Your task to perform on an android device: Open Youtube and go to the subscriptions tab Image 0: 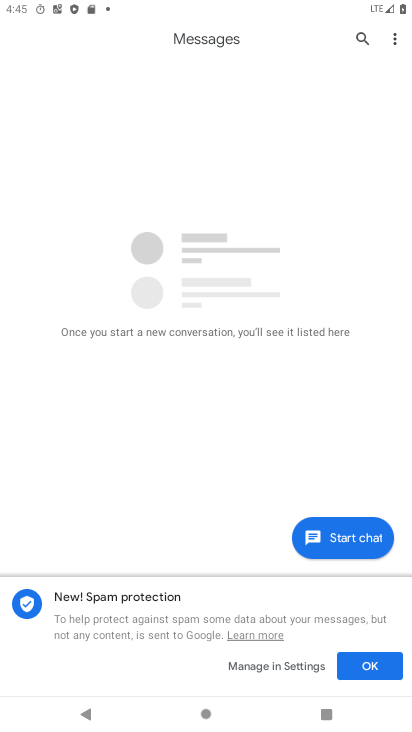
Step 0: press home button
Your task to perform on an android device: Open Youtube and go to the subscriptions tab Image 1: 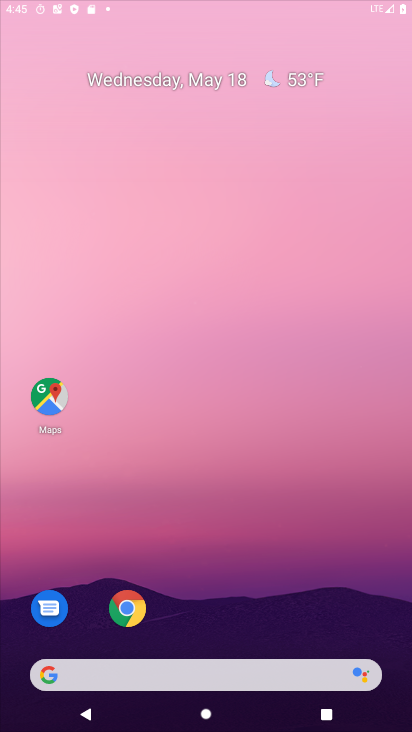
Step 1: drag from (219, 670) to (262, 13)
Your task to perform on an android device: Open Youtube and go to the subscriptions tab Image 2: 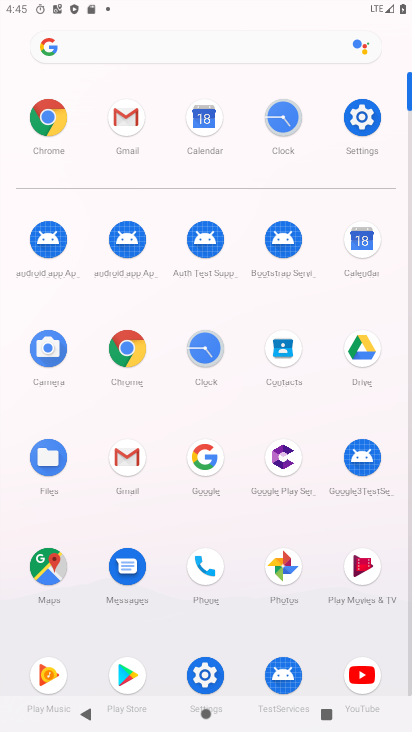
Step 2: click (366, 677)
Your task to perform on an android device: Open Youtube and go to the subscriptions tab Image 3: 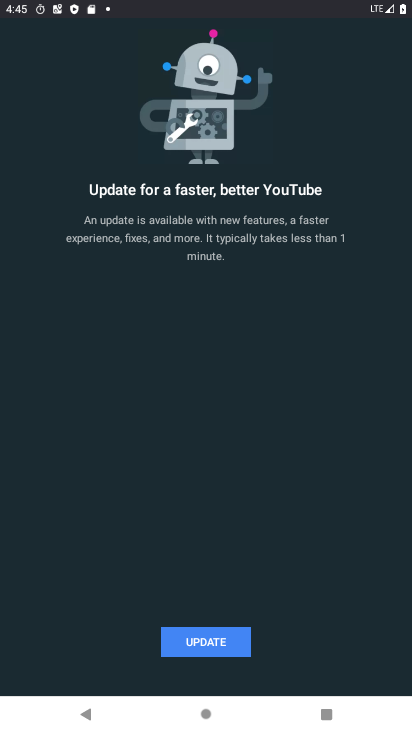
Step 3: click (212, 649)
Your task to perform on an android device: Open Youtube and go to the subscriptions tab Image 4: 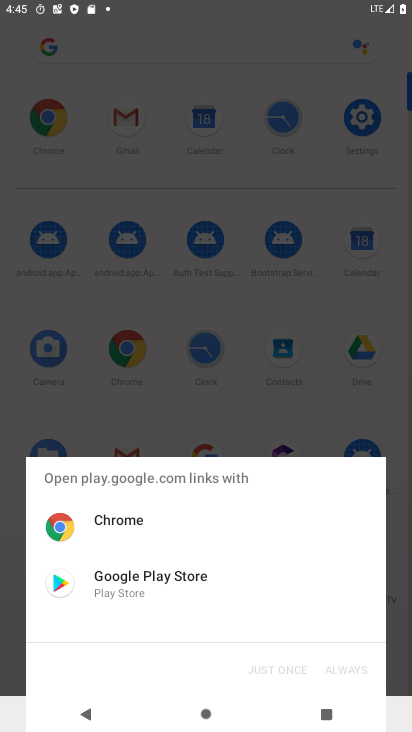
Step 4: click (169, 581)
Your task to perform on an android device: Open Youtube and go to the subscriptions tab Image 5: 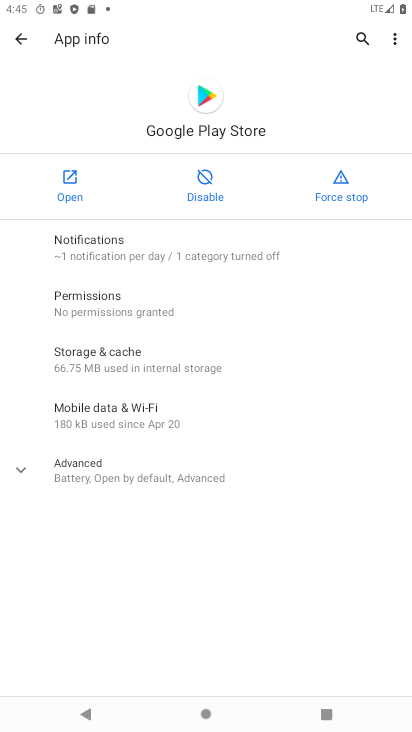
Step 5: press back button
Your task to perform on an android device: Open Youtube and go to the subscriptions tab Image 6: 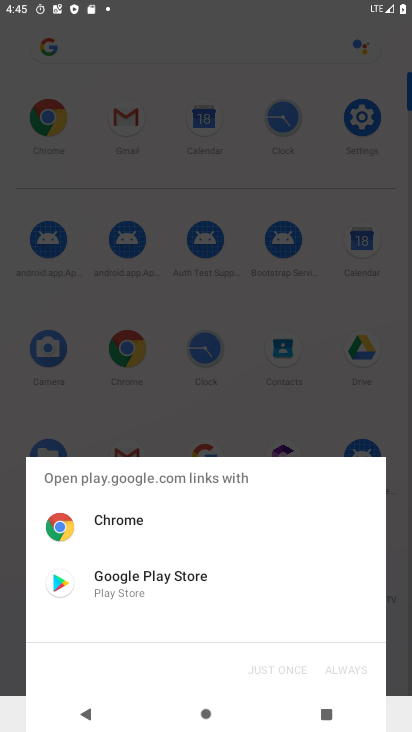
Step 6: click (141, 571)
Your task to perform on an android device: Open Youtube and go to the subscriptions tab Image 7: 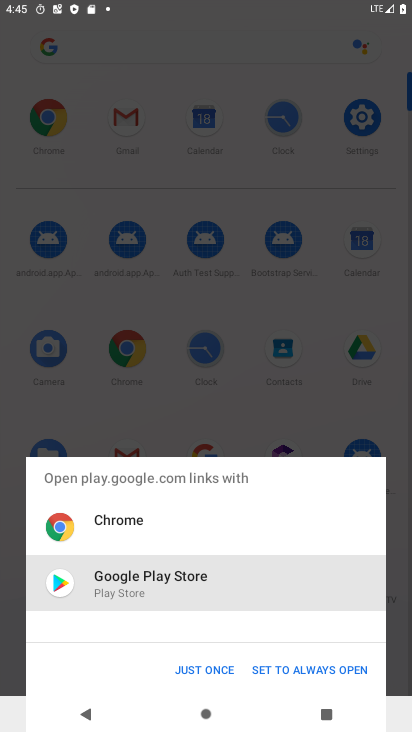
Step 7: click (210, 674)
Your task to perform on an android device: Open Youtube and go to the subscriptions tab Image 8: 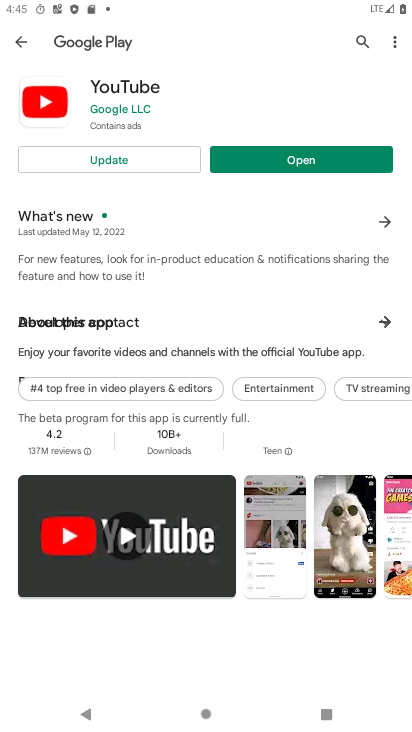
Step 8: click (139, 156)
Your task to perform on an android device: Open Youtube and go to the subscriptions tab Image 9: 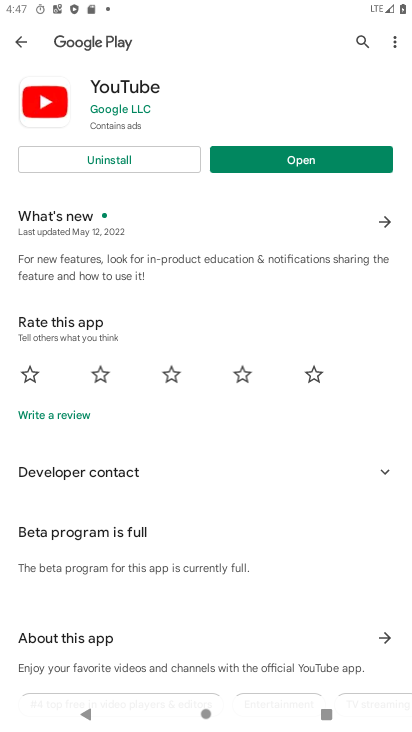
Step 9: click (281, 152)
Your task to perform on an android device: Open Youtube and go to the subscriptions tab Image 10: 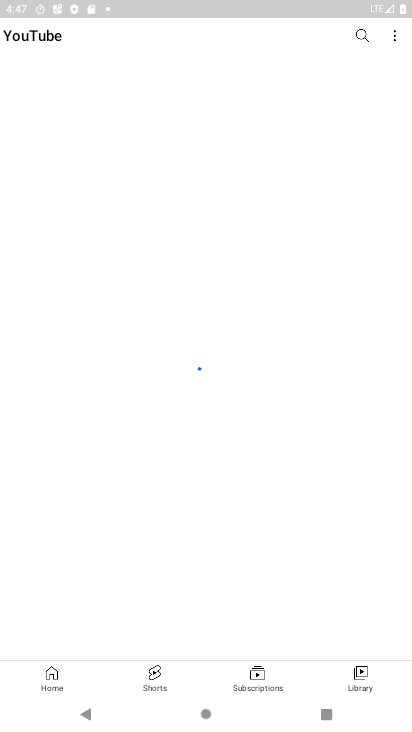
Step 10: click (256, 678)
Your task to perform on an android device: Open Youtube and go to the subscriptions tab Image 11: 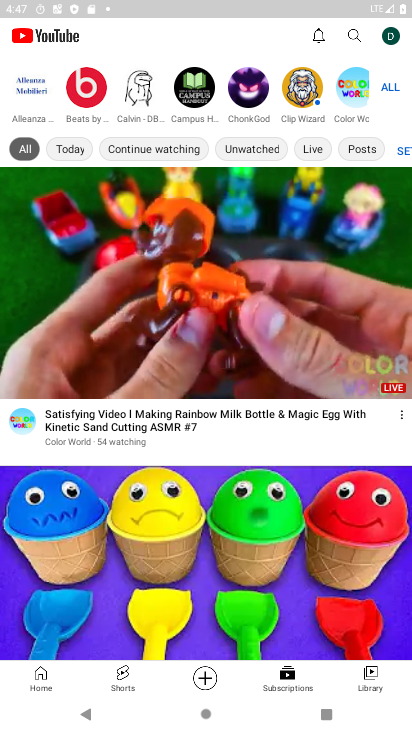
Step 11: task complete